Your task to perform on an android device: create a new album in the google photos Image 0: 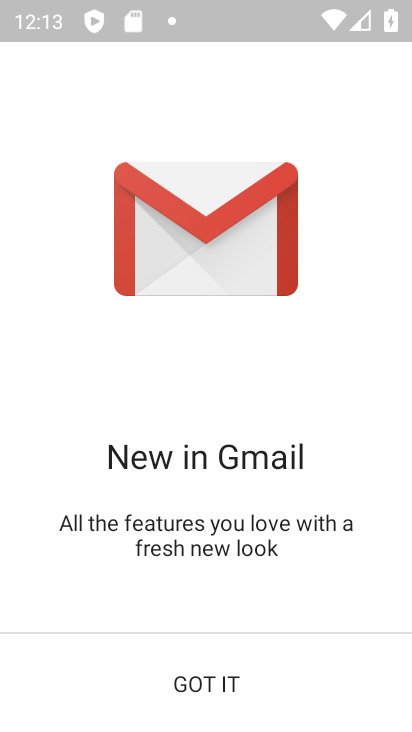
Step 0: press home button
Your task to perform on an android device: create a new album in the google photos Image 1: 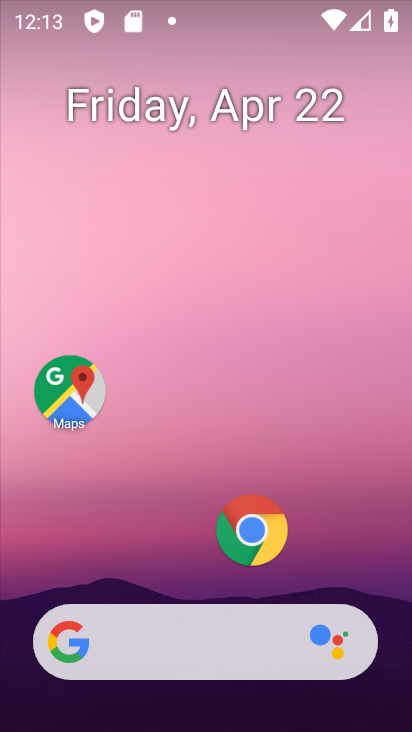
Step 1: drag from (217, 679) to (206, 163)
Your task to perform on an android device: create a new album in the google photos Image 2: 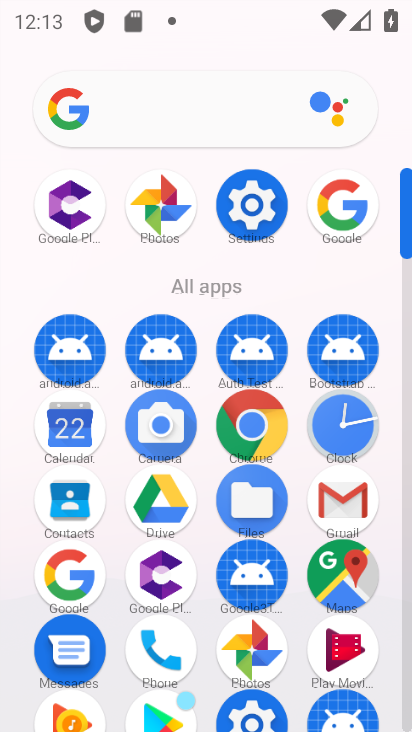
Step 2: click (163, 203)
Your task to perform on an android device: create a new album in the google photos Image 3: 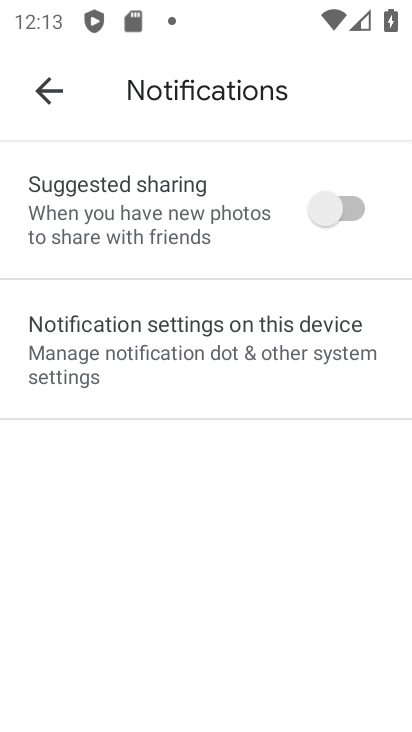
Step 3: click (53, 88)
Your task to perform on an android device: create a new album in the google photos Image 4: 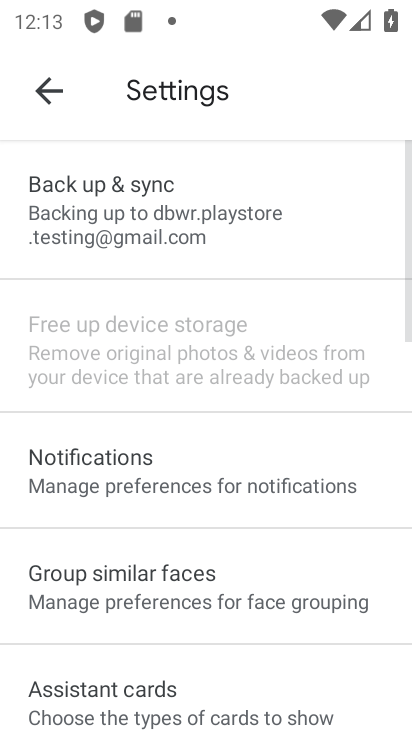
Step 4: click (50, 88)
Your task to perform on an android device: create a new album in the google photos Image 5: 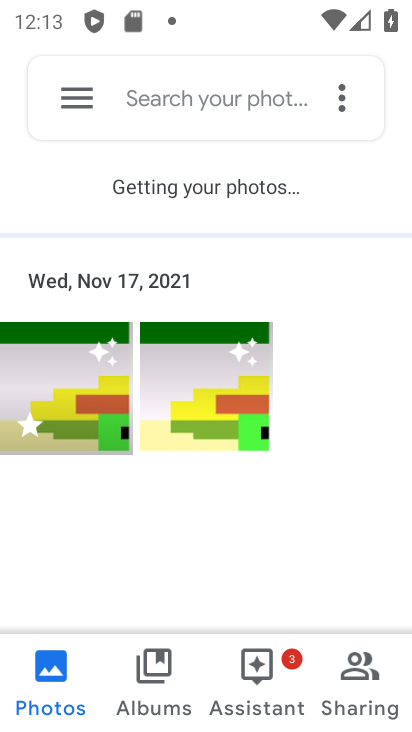
Step 5: click (343, 98)
Your task to perform on an android device: create a new album in the google photos Image 6: 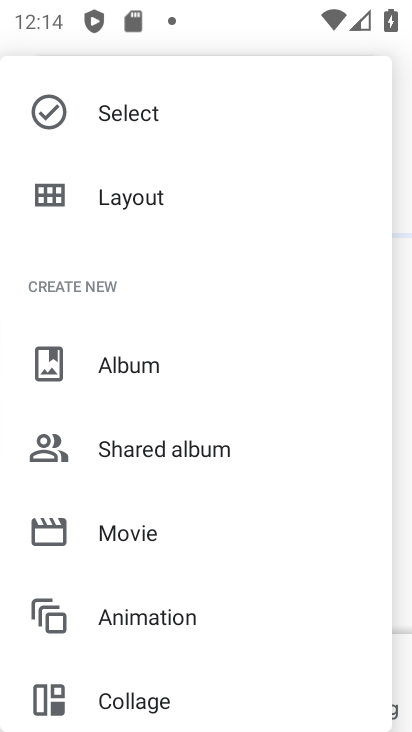
Step 6: click (131, 357)
Your task to perform on an android device: create a new album in the google photos Image 7: 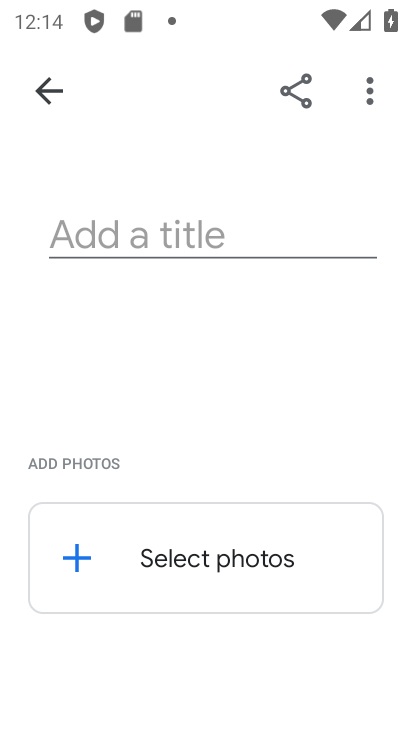
Step 7: click (183, 239)
Your task to perform on an android device: create a new album in the google photos Image 8: 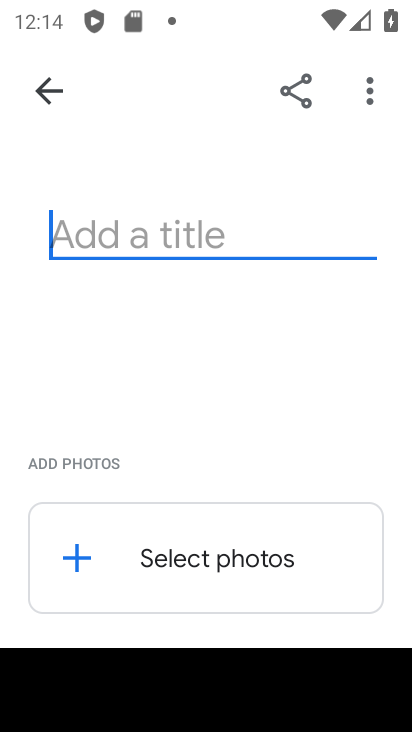
Step 8: type "vvvvv"
Your task to perform on an android device: create a new album in the google photos Image 9: 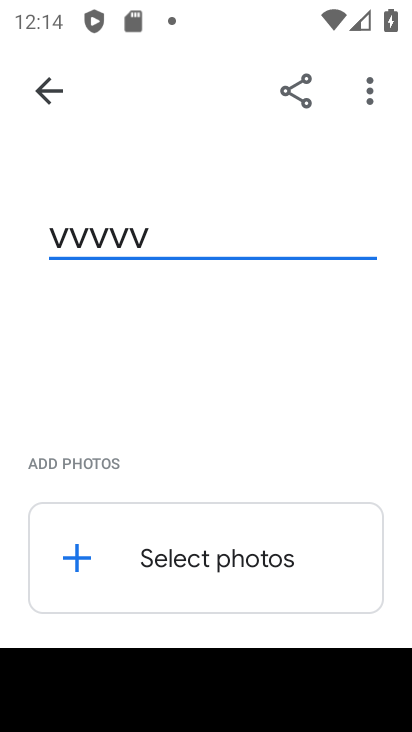
Step 9: click (221, 413)
Your task to perform on an android device: create a new album in the google photos Image 10: 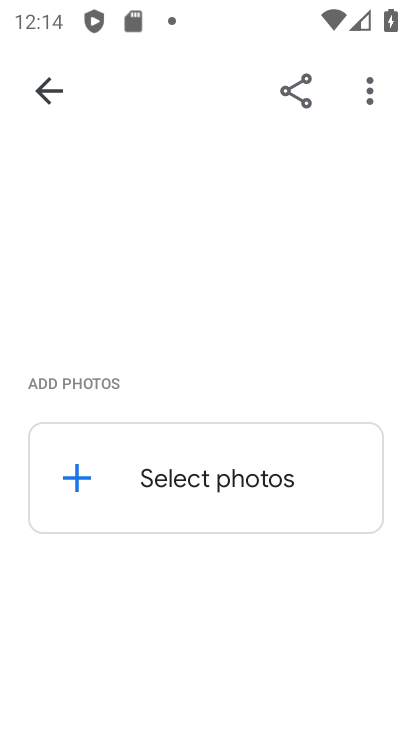
Step 10: click (185, 479)
Your task to perform on an android device: create a new album in the google photos Image 11: 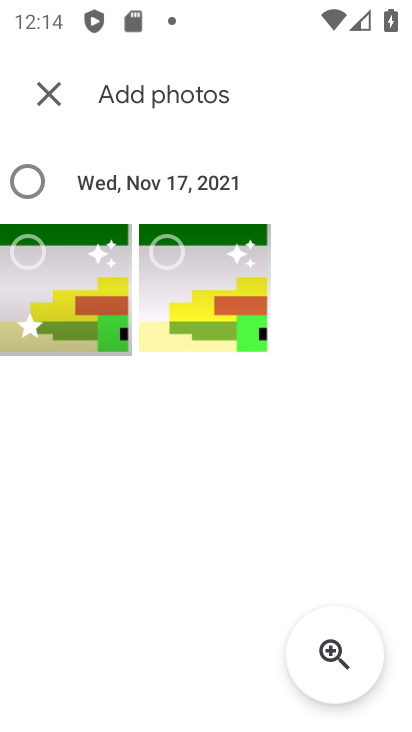
Step 11: click (169, 254)
Your task to perform on an android device: create a new album in the google photos Image 12: 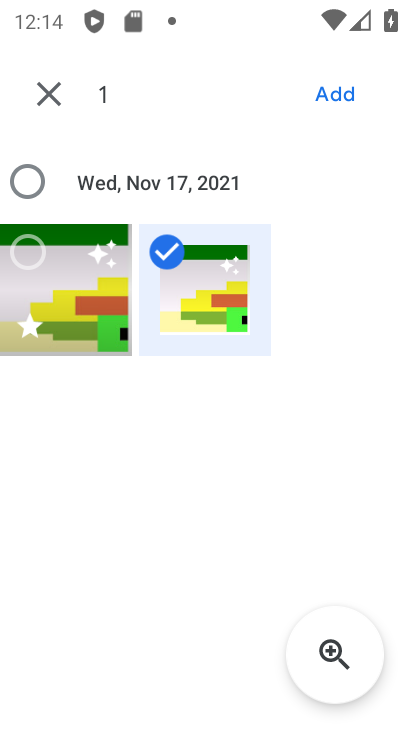
Step 12: click (325, 90)
Your task to perform on an android device: create a new album in the google photos Image 13: 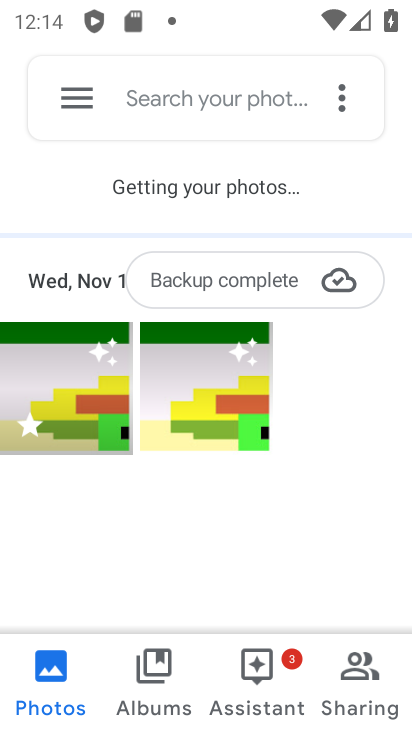
Step 13: task complete